Your task to perform on an android device: turn off sleep mode Image 0: 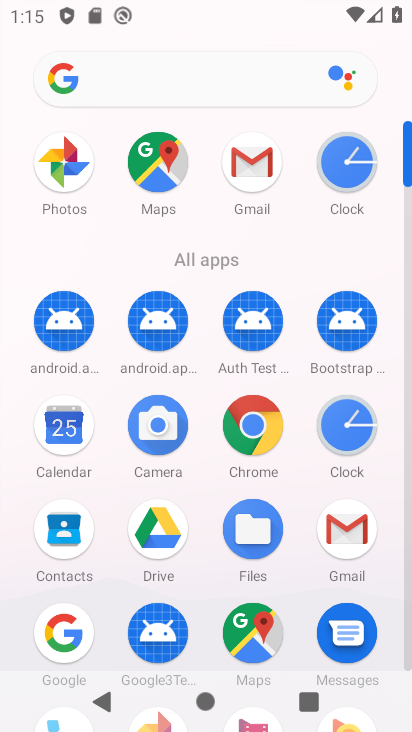
Step 0: drag from (190, 475) to (154, 127)
Your task to perform on an android device: turn off sleep mode Image 1: 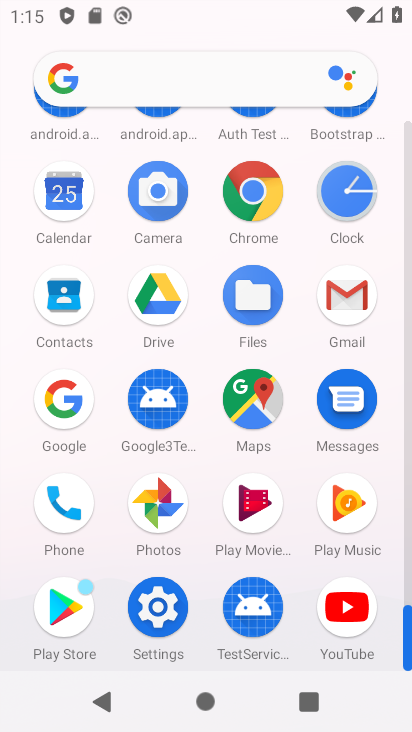
Step 1: click (167, 609)
Your task to perform on an android device: turn off sleep mode Image 2: 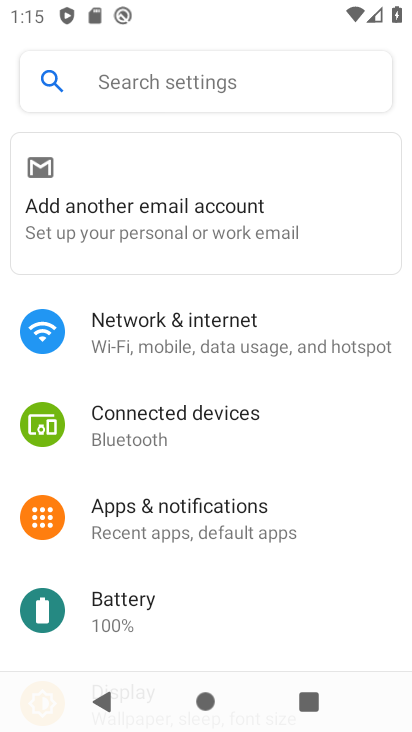
Step 2: drag from (199, 496) to (214, 200)
Your task to perform on an android device: turn off sleep mode Image 3: 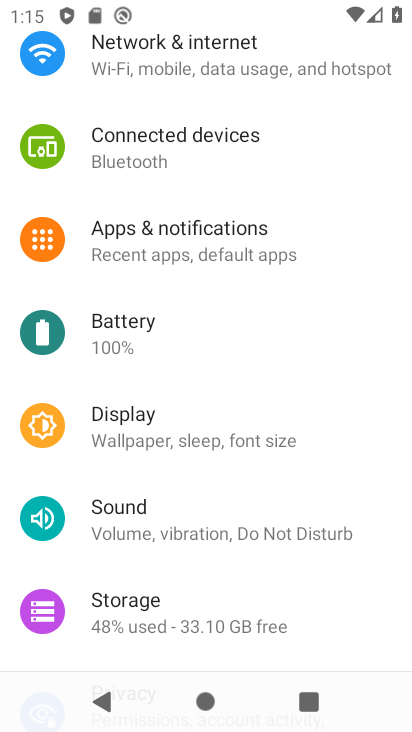
Step 3: click (196, 427)
Your task to perform on an android device: turn off sleep mode Image 4: 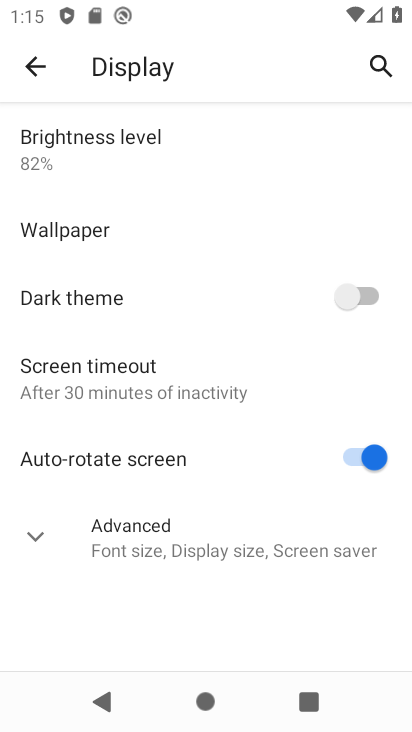
Step 4: click (42, 532)
Your task to perform on an android device: turn off sleep mode Image 5: 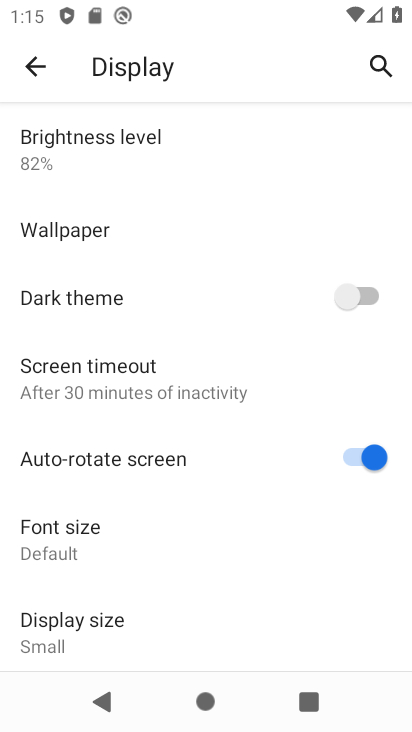
Step 5: task complete